Your task to perform on an android device: Check the weather Image 0: 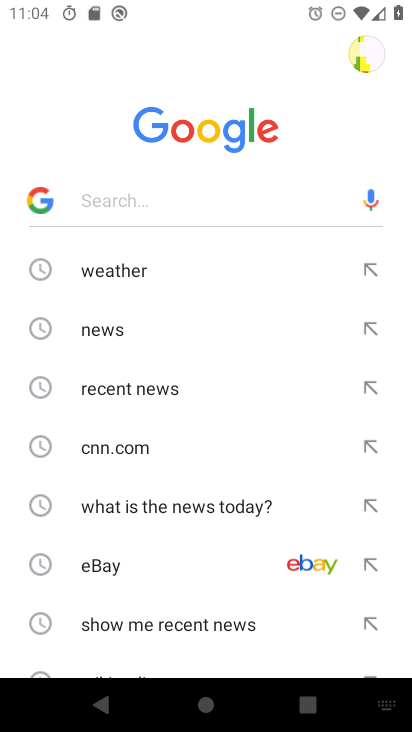
Step 0: press home button
Your task to perform on an android device: Check the weather Image 1: 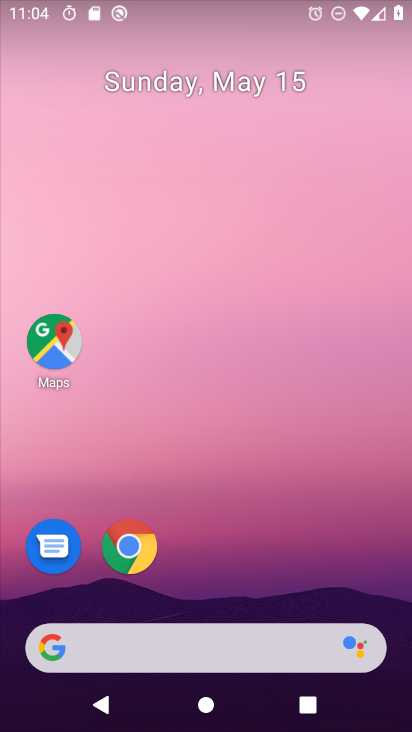
Step 1: drag from (228, 577) to (239, 160)
Your task to perform on an android device: Check the weather Image 2: 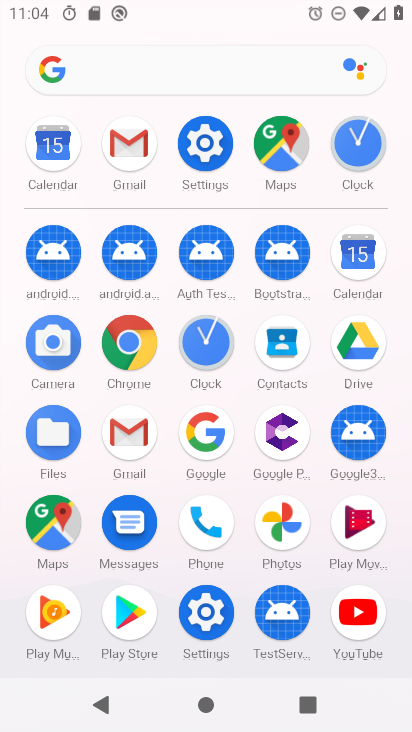
Step 2: click (121, 360)
Your task to perform on an android device: Check the weather Image 3: 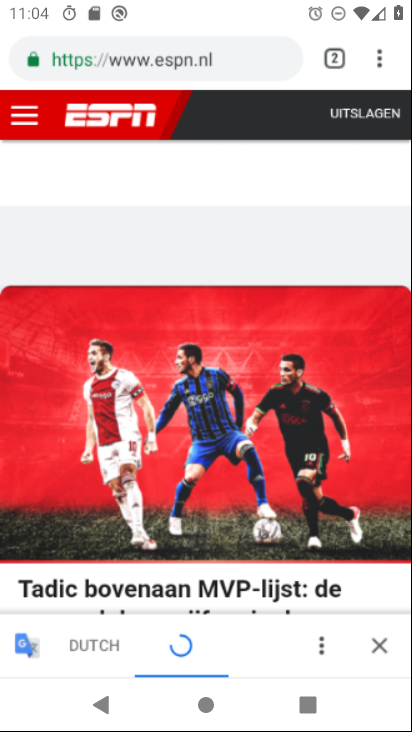
Step 3: click (218, 61)
Your task to perform on an android device: Check the weather Image 4: 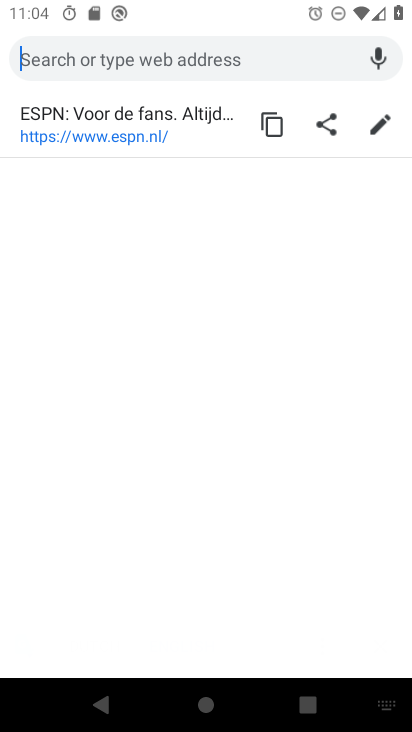
Step 4: type "weather"
Your task to perform on an android device: Check the weather Image 5: 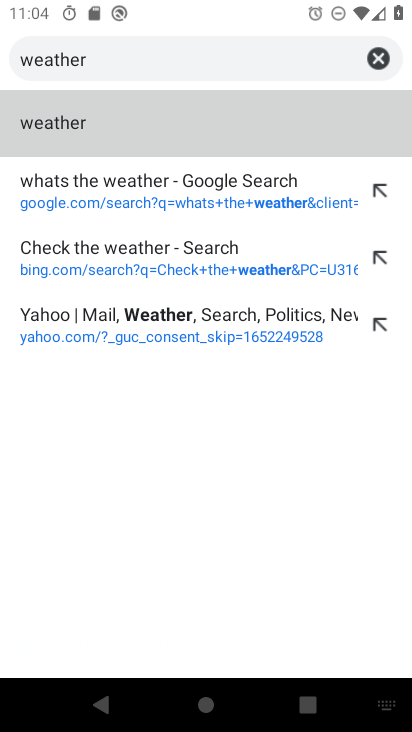
Step 5: click (40, 121)
Your task to perform on an android device: Check the weather Image 6: 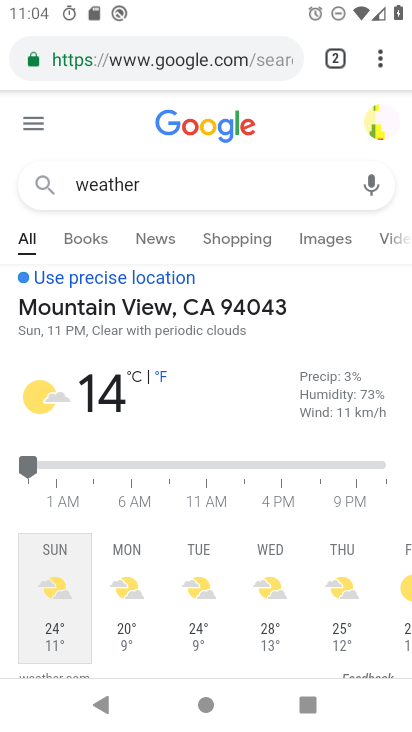
Step 6: task complete